Your task to perform on an android device: check out phone information Image 0: 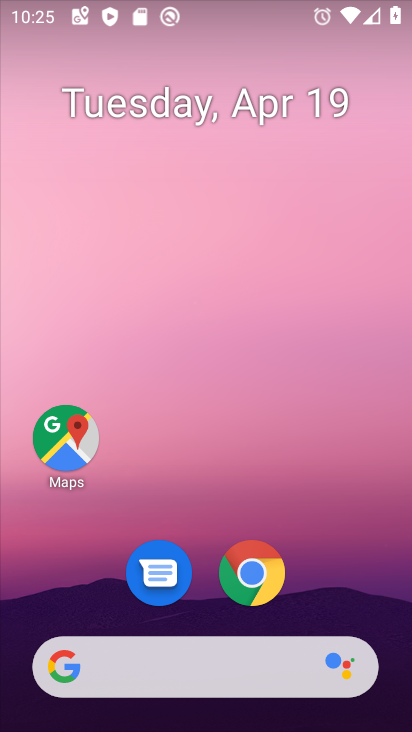
Step 0: drag from (318, 524) to (309, 126)
Your task to perform on an android device: check out phone information Image 1: 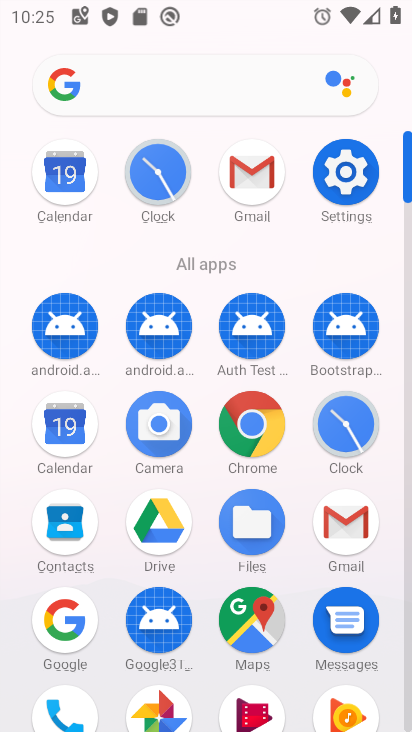
Step 1: click (66, 701)
Your task to perform on an android device: check out phone information Image 2: 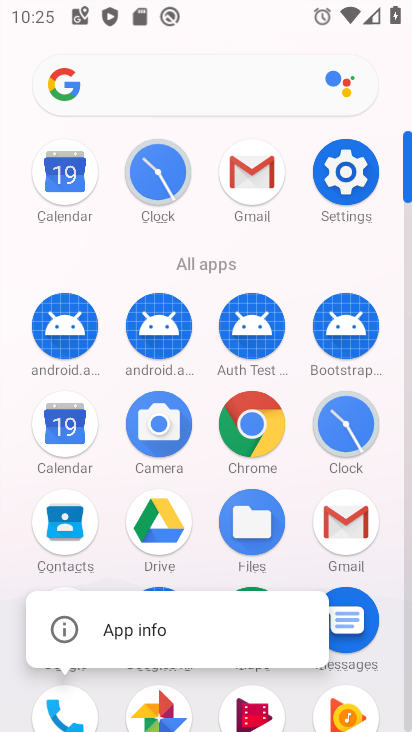
Step 2: click (73, 711)
Your task to perform on an android device: check out phone information Image 3: 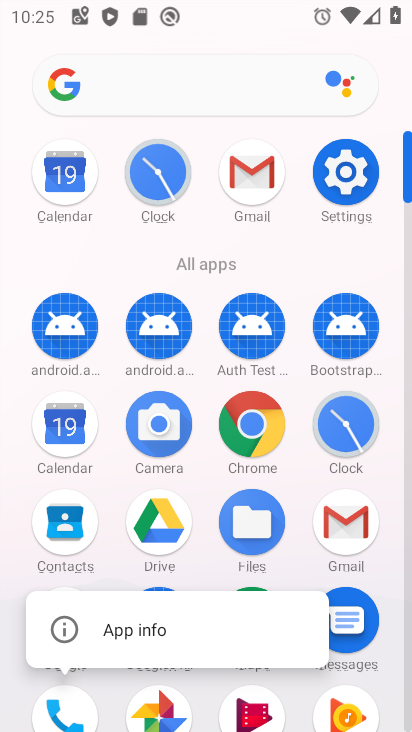
Step 3: click (91, 658)
Your task to perform on an android device: check out phone information Image 4: 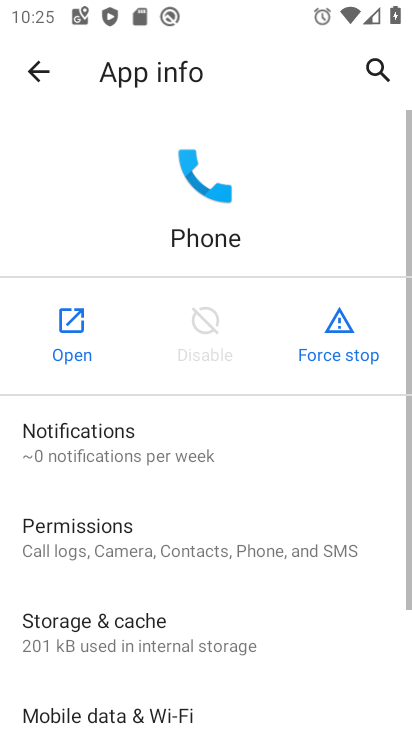
Step 4: click (73, 326)
Your task to perform on an android device: check out phone information Image 5: 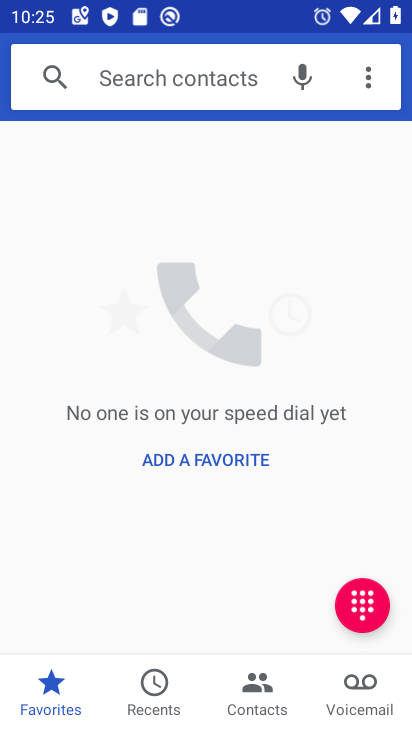
Step 5: click (363, 78)
Your task to perform on an android device: check out phone information Image 6: 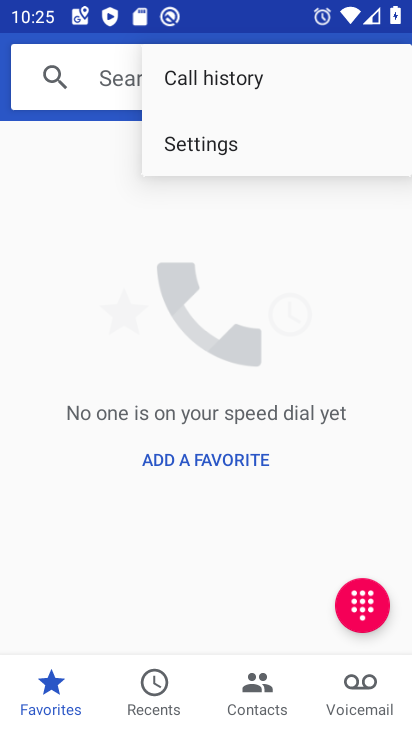
Step 6: click (214, 144)
Your task to perform on an android device: check out phone information Image 7: 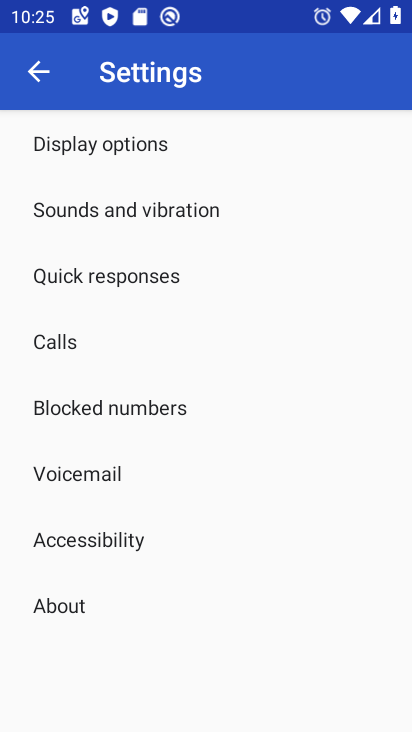
Step 7: click (63, 599)
Your task to perform on an android device: check out phone information Image 8: 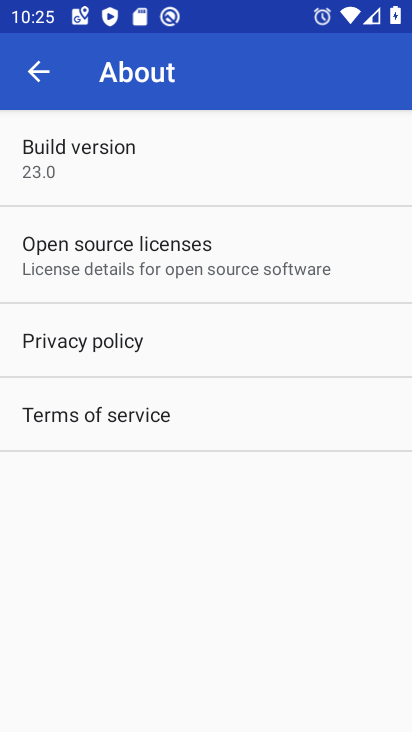
Step 8: task complete